Your task to perform on an android device: Go to sound settings Image 0: 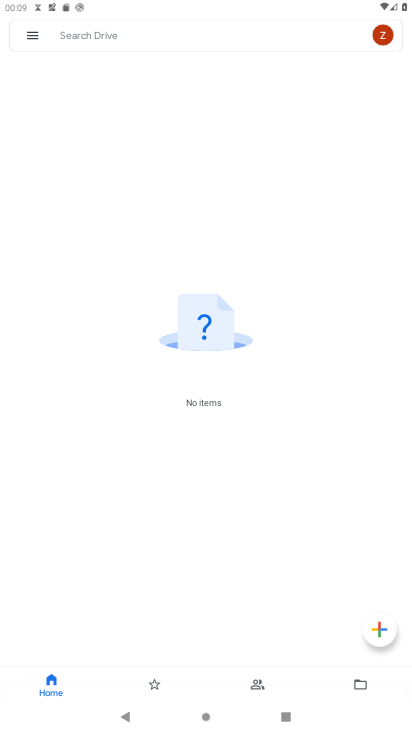
Step 0: press home button
Your task to perform on an android device: Go to sound settings Image 1: 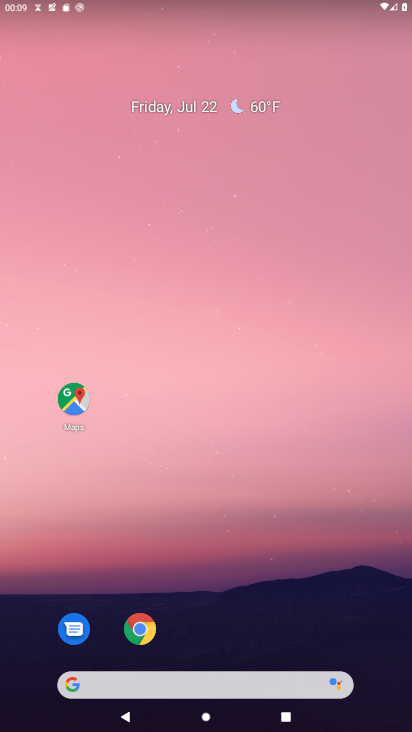
Step 1: drag from (225, 607) to (217, 90)
Your task to perform on an android device: Go to sound settings Image 2: 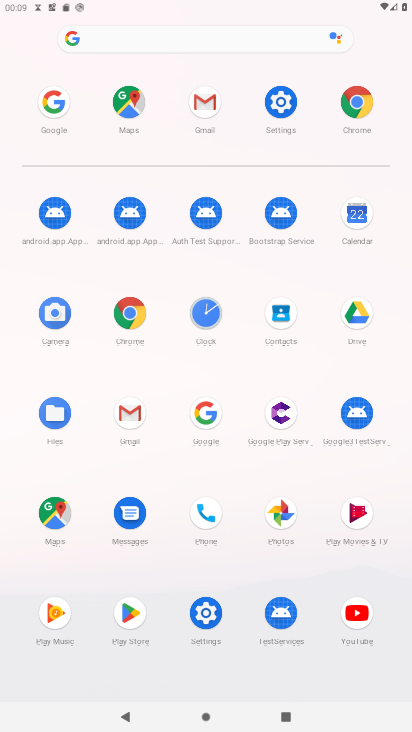
Step 2: click (278, 106)
Your task to perform on an android device: Go to sound settings Image 3: 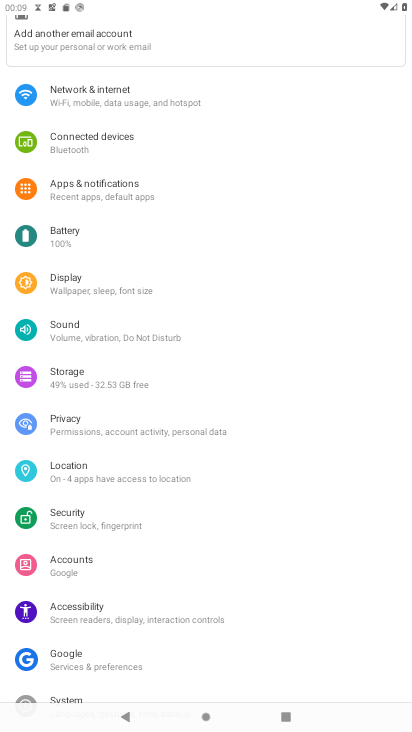
Step 3: click (72, 331)
Your task to perform on an android device: Go to sound settings Image 4: 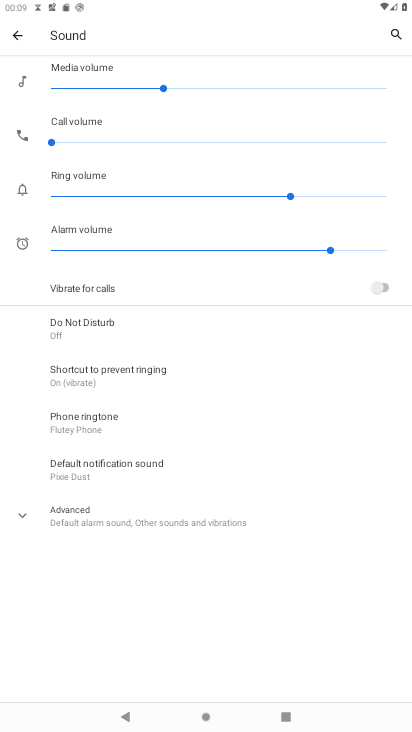
Step 4: task complete